Your task to perform on an android device: make emails show in primary in the gmail app Image 0: 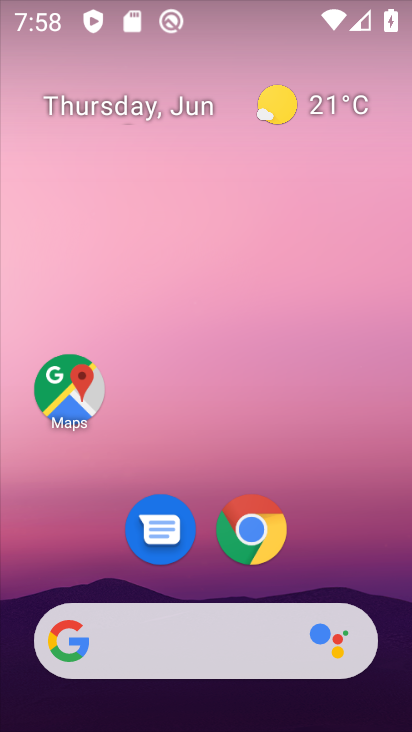
Step 0: drag from (396, 707) to (366, 192)
Your task to perform on an android device: make emails show in primary in the gmail app Image 1: 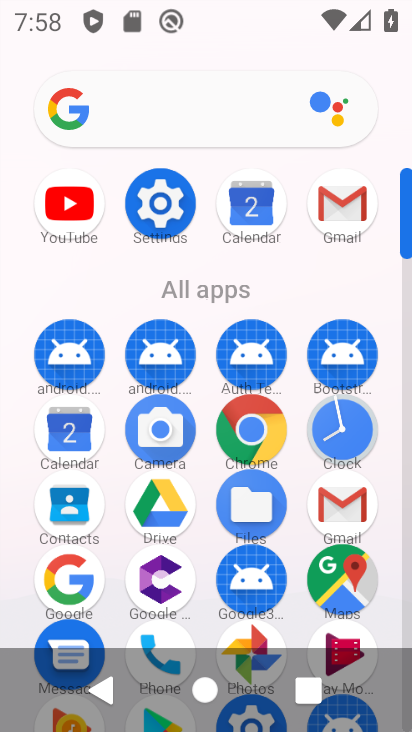
Step 1: click (351, 215)
Your task to perform on an android device: make emails show in primary in the gmail app Image 2: 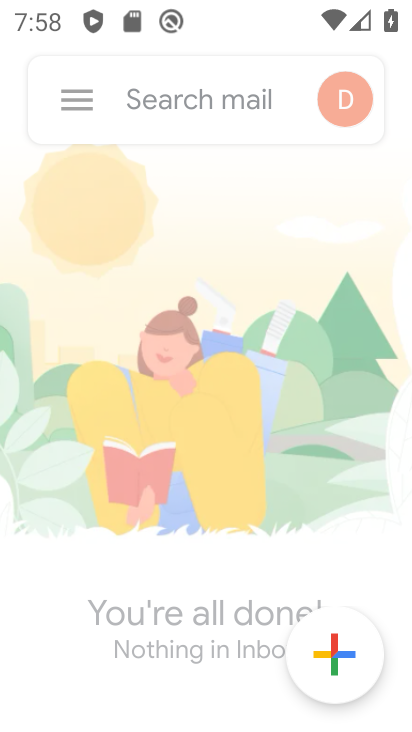
Step 2: click (82, 100)
Your task to perform on an android device: make emails show in primary in the gmail app Image 3: 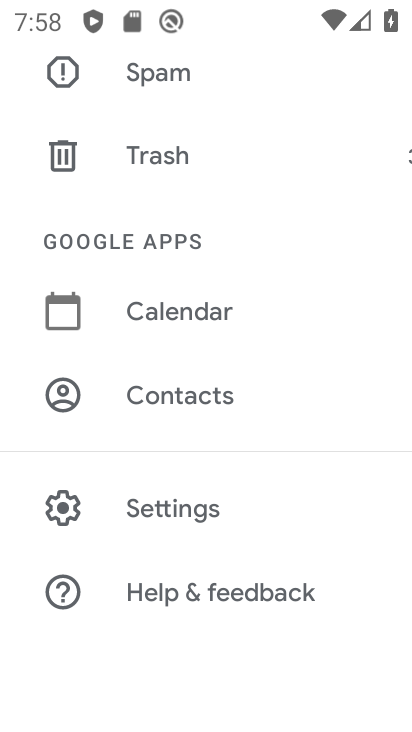
Step 3: click (177, 509)
Your task to perform on an android device: make emails show in primary in the gmail app Image 4: 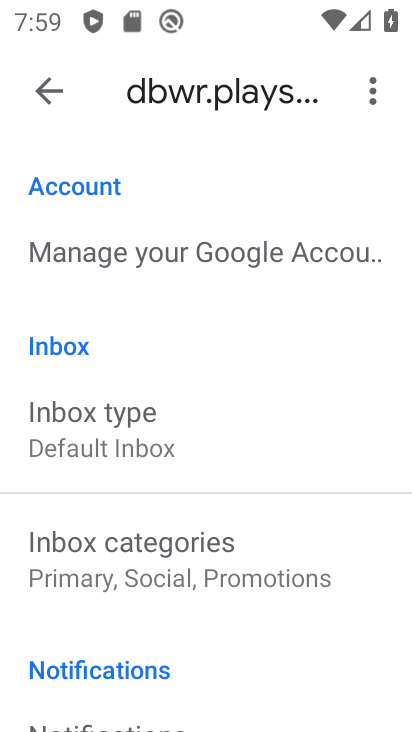
Step 4: click (121, 560)
Your task to perform on an android device: make emails show in primary in the gmail app Image 5: 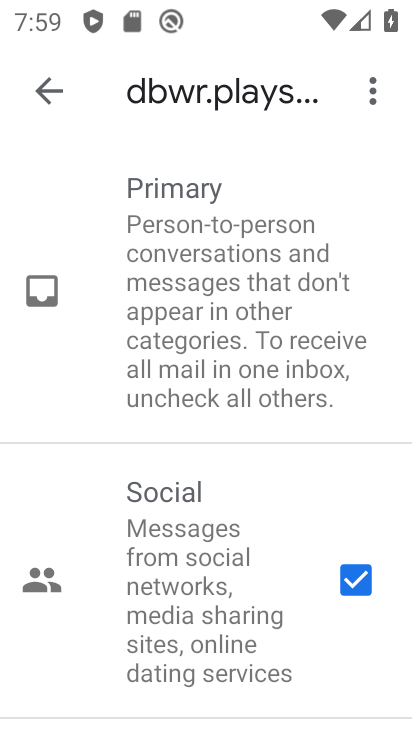
Step 5: click (343, 586)
Your task to perform on an android device: make emails show in primary in the gmail app Image 6: 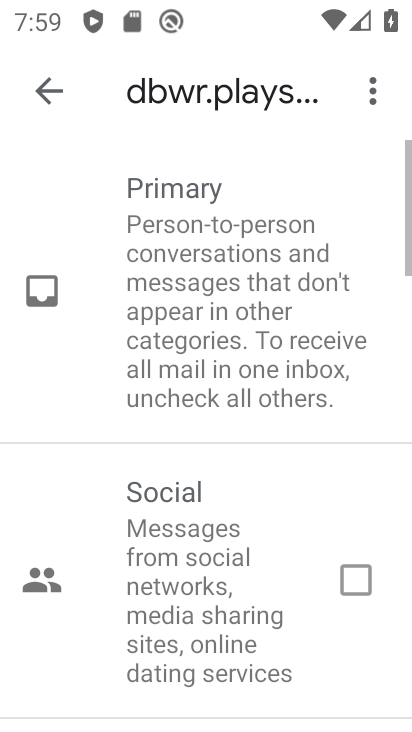
Step 6: drag from (320, 623) to (301, 232)
Your task to perform on an android device: make emails show in primary in the gmail app Image 7: 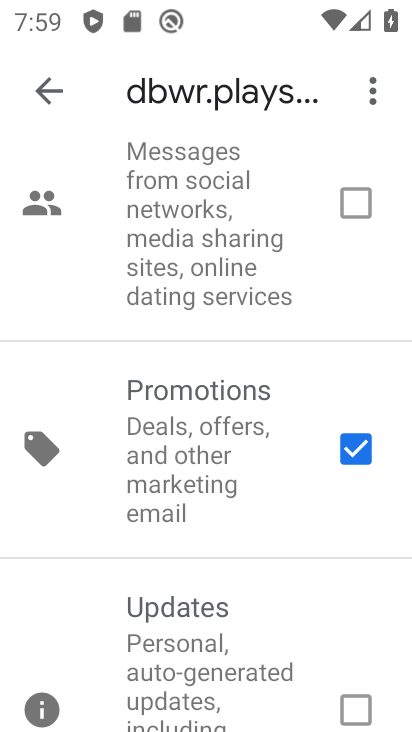
Step 7: click (336, 442)
Your task to perform on an android device: make emails show in primary in the gmail app Image 8: 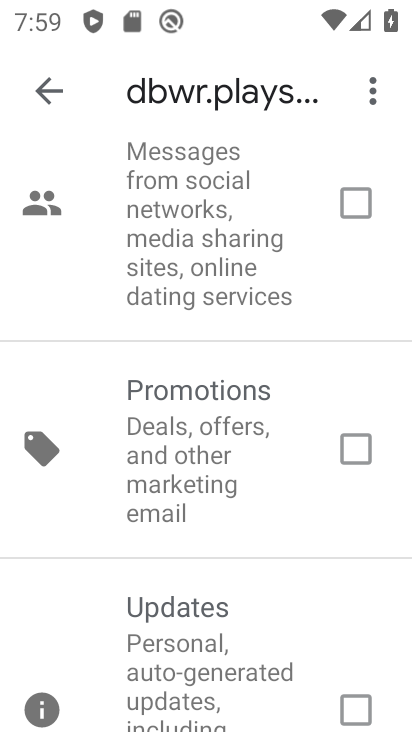
Step 8: click (57, 97)
Your task to perform on an android device: make emails show in primary in the gmail app Image 9: 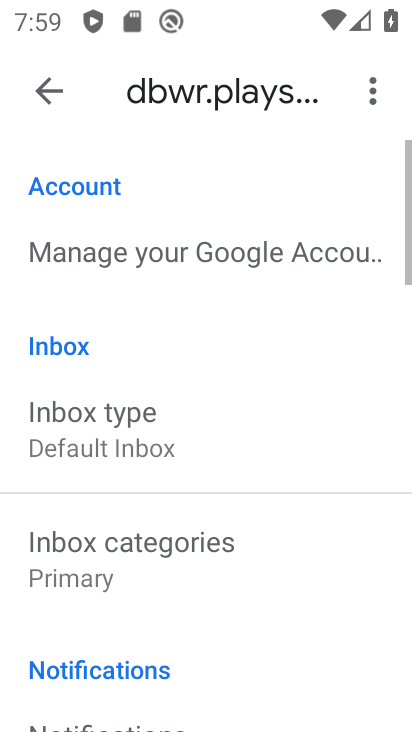
Step 9: task complete